Your task to perform on an android device: change the upload size in google photos Image 0: 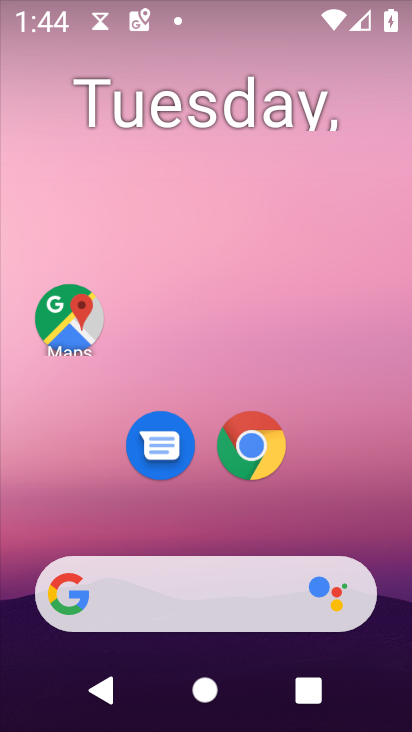
Step 0: drag from (271, 595) to (272, 55)
Your task to perform on an android device: change the upload size in google photos Image 1: 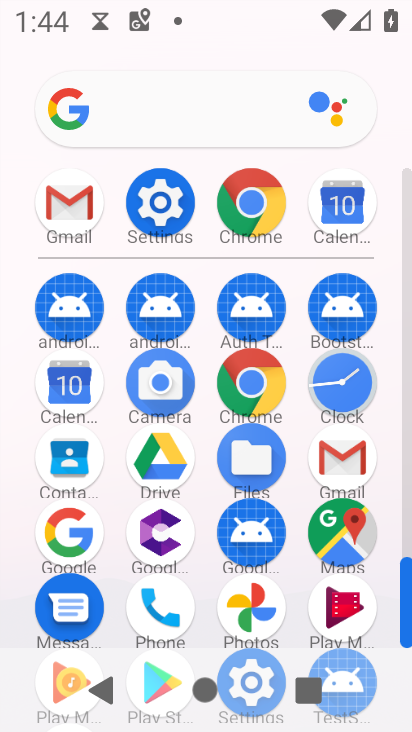
Step 1: click (247, 629)
Your task to perform on an android device: change the upload size in google photos Image 2: 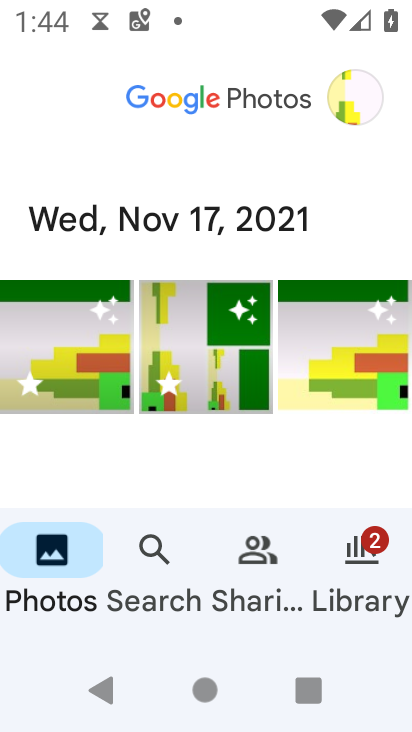
Step 2: click (371, 96)
Your task to perform on an android device: change the upload size in google photos Image 3: 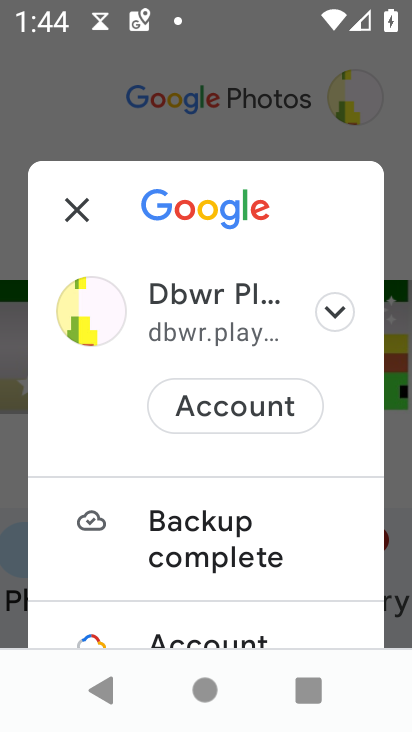
Step 3: drag from (281, 563) to (313, 215)
Your task to perform on an android device: change the upload size in google photos Image 4: 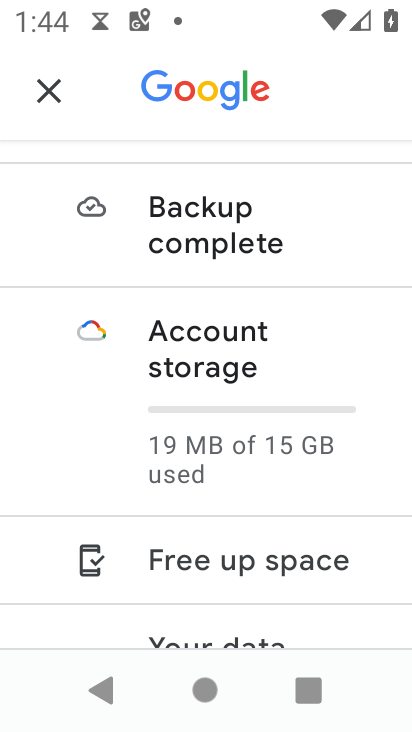
Step 4: drag from (274, 529) to (336, 227)
Your task to perform on an android device: change the upload size in google photos Image 5: 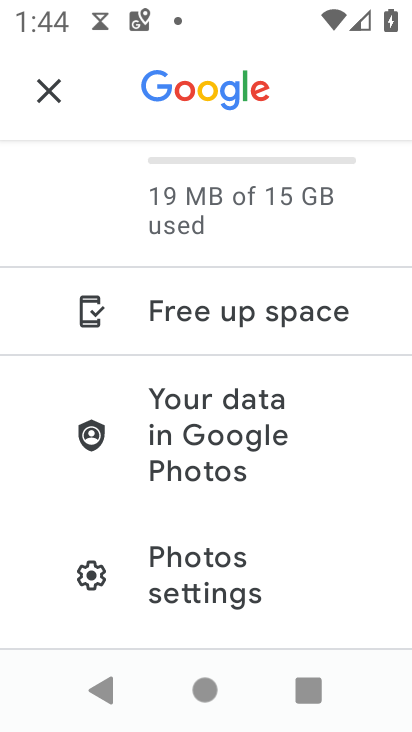
Step 5: click (245, 580)
Your task to perform on an android device: change the upload size in google photos Image 6: 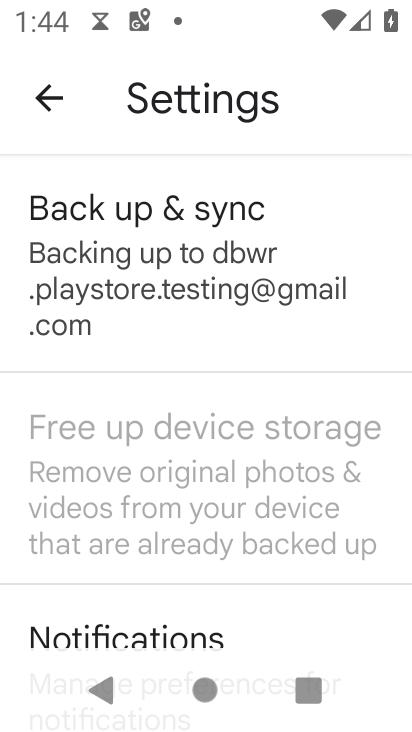
Step 6: drag from (209, 648) to (214, 415)
Your task to perform on an android device: change the upload size in google photos Image 7: 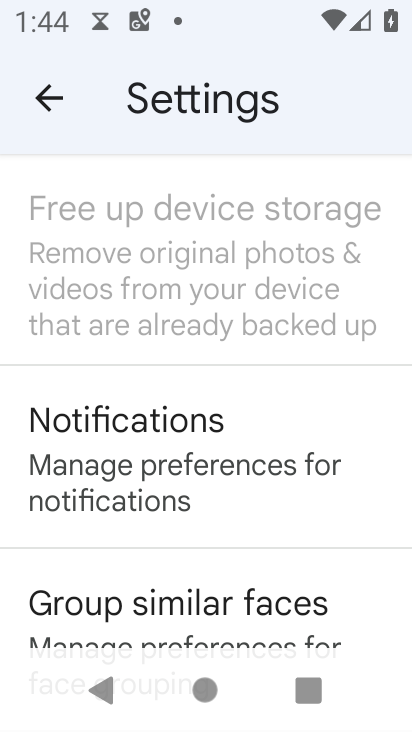
Step 7: drag from (216, 264) to (268, 683)
Your task to perform on an android device: change the upload size in google photos Image 8: 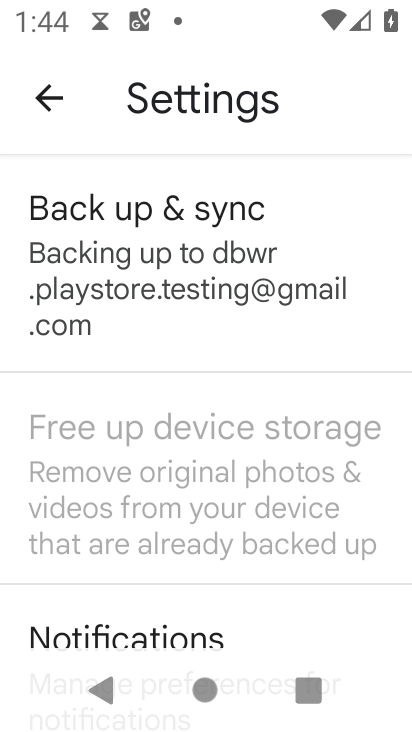
Step 8: click (260, 314)
Your task to perform on an android device: change the upload size in google photos Image 9: 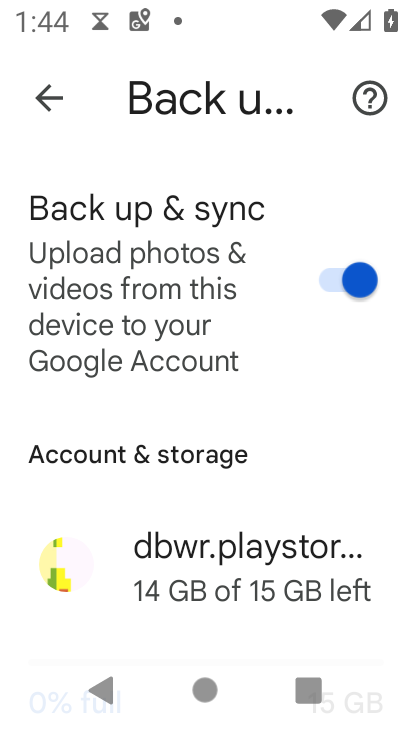
Step 9: drag from (235, 579) to (284, 187)
Your task to perform on an android device: change the upload size in google photos Image 10: 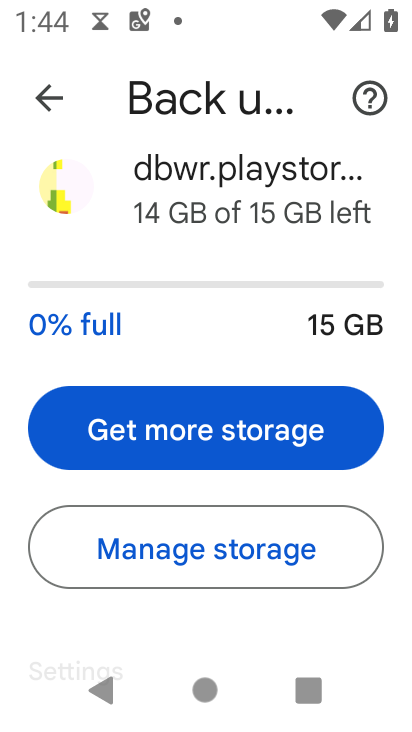
Step 10: drag from (326, 204) to (358, 570)
Your task to perform on an android device: change the upload size in google photos Image 11: 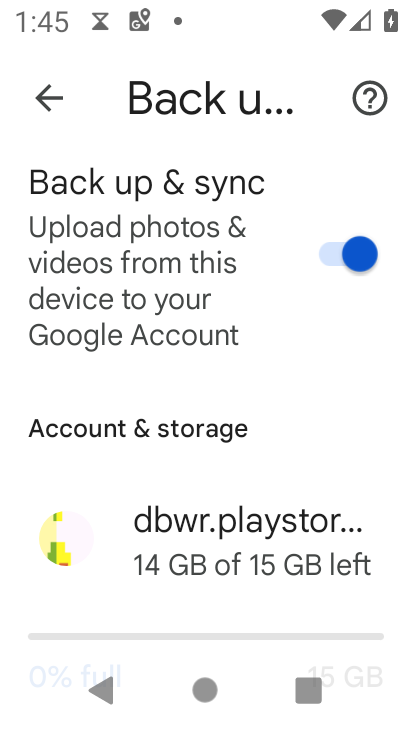
Step 11: drag from (307, 585) to (318, 83)
Your task to perform on an android device: change the upload size in google photos Image 12: 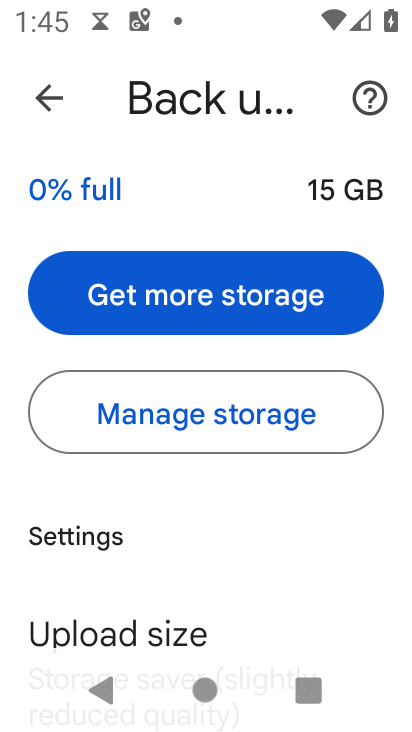
Step 12: drag from (224, 567) to (281, 232)
Your task to perform on an android device: change the upload size in google photos Image 13: 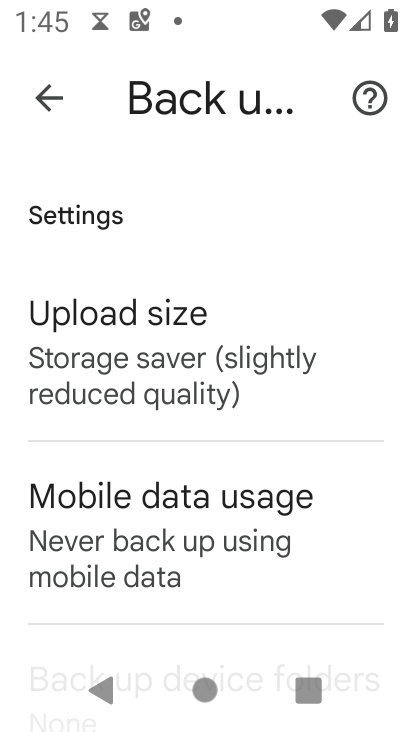
Step 13: click (167, 341)
Your task to perform on an android device: change the upload size in google photos Image 14: 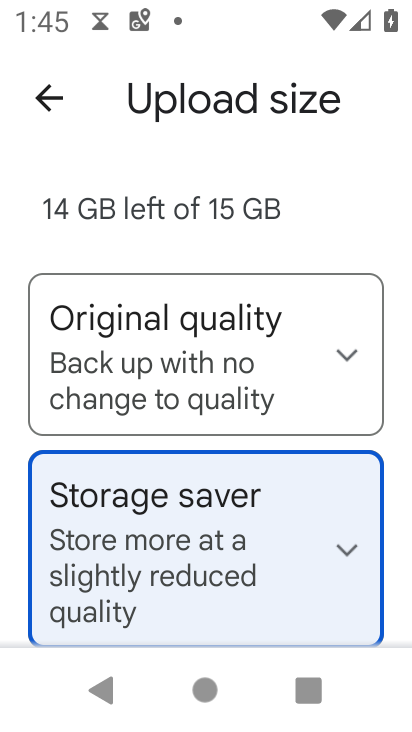
Step 14: click (215, 381)
Your task to perform on an android device: change the upload size in google photos Image 15: 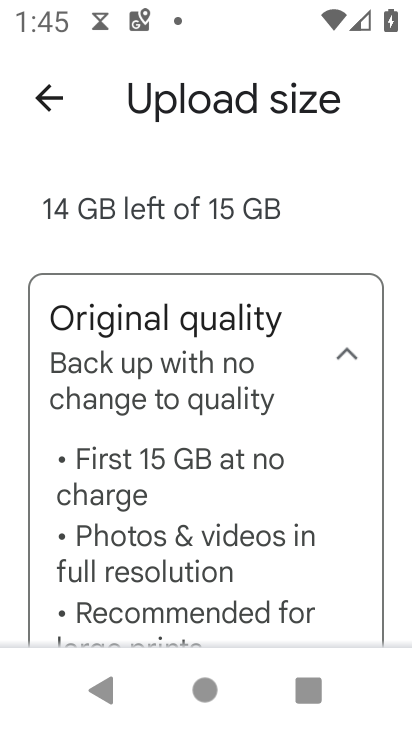
Step 15: click (219, 368)
Your task to perform on an android device: change the upload size in google photos Image 16: 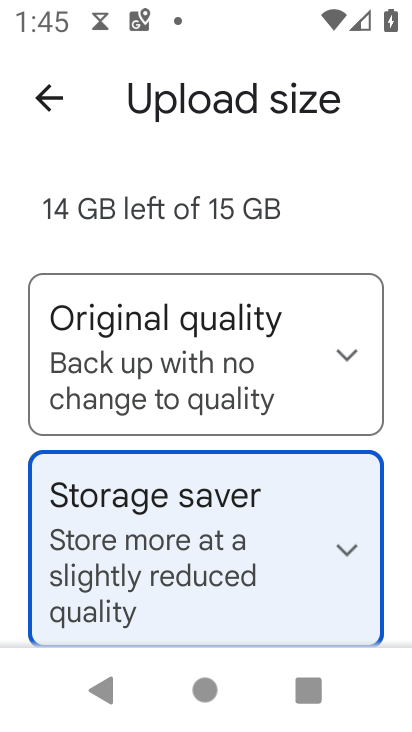
Step 16: click (232, 379)
Your task to perform on an android device: change the upload size in google photos Image 17: 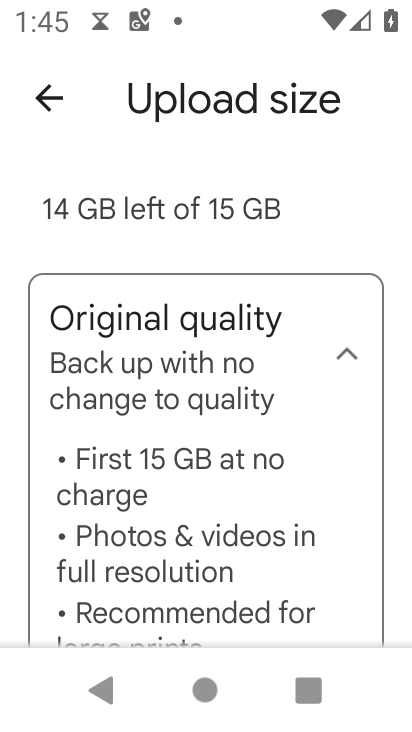
Step 17: drag from (252, 564) to (313, 153)
Your task to perform on an android device: change the upload size in google photos Image 18: 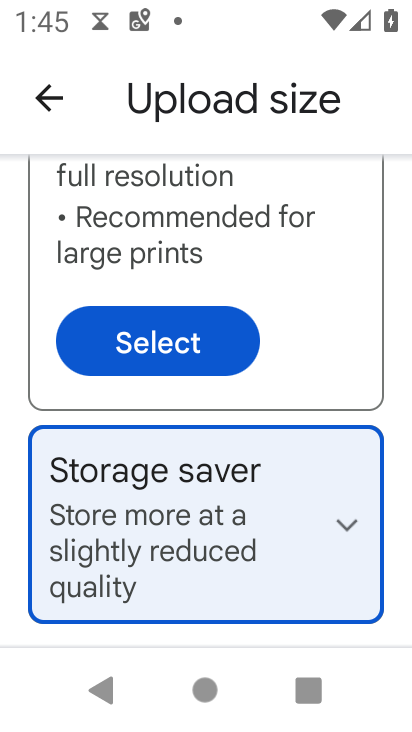
Step 18: click (194, 323)
Your task to perform on an android device: change the upload size in google photos Image 19: 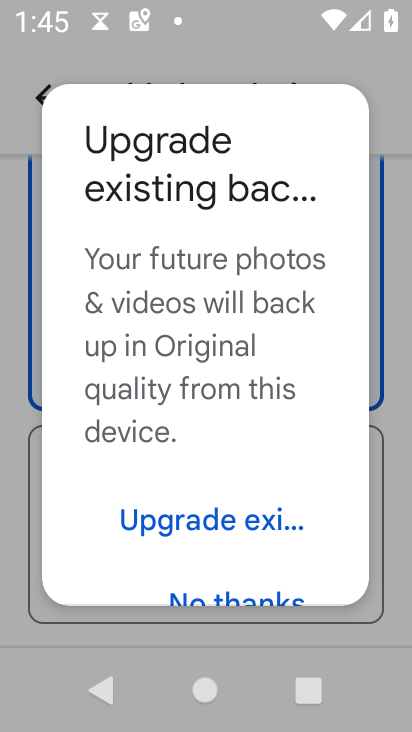
Step 19: click (208, 526)
Your task to perform on an android device: change the upload size in google photos Image 20: 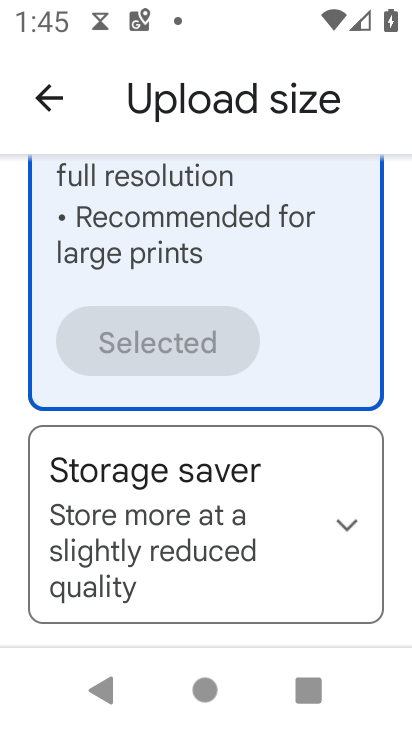
Step 20: task complete